Your task to perform on an android device: turn on data saver in the chrome app Image 0: 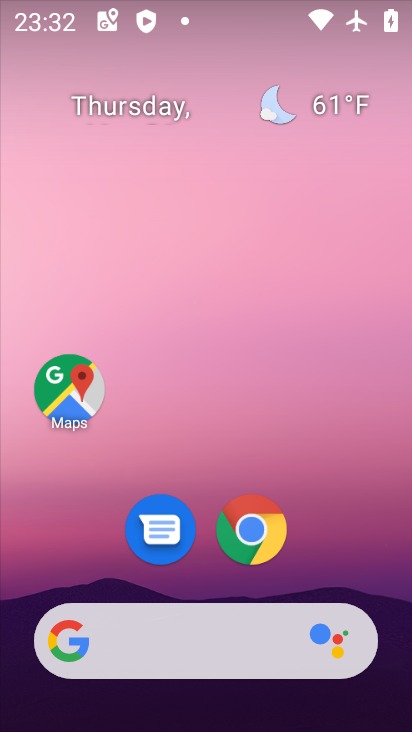
Step 0: click (280, 556)
Your task to perform on an android device: turn on data saver in the chrome app Image 1: 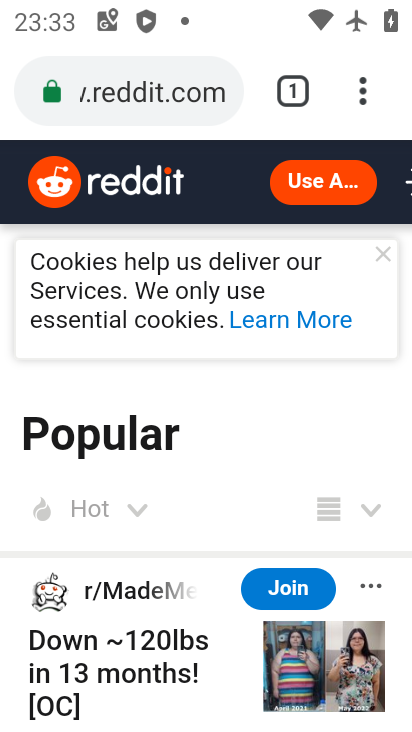
Step 1: click (359, 93)
Your task to perform on an android device: turn on data saver in the chrome app Image 2: 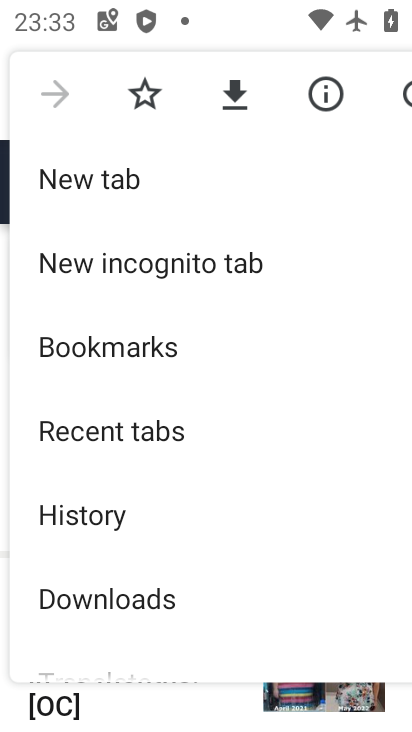
Step 2: drag from (173, 639) to (191, 228)
Your task to perform on an android device: turn on data saver in the chrome app Image 3: 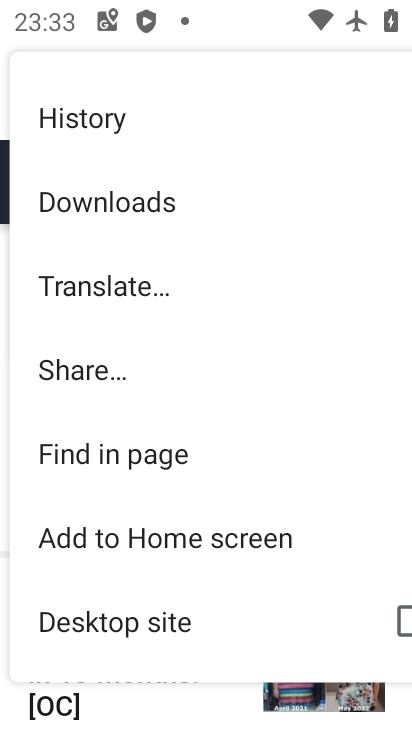
Step 3: drag from (126, 623) to (207, 274)
Your task to perform on an android device: turn on data saver in the chrome app Image 4: 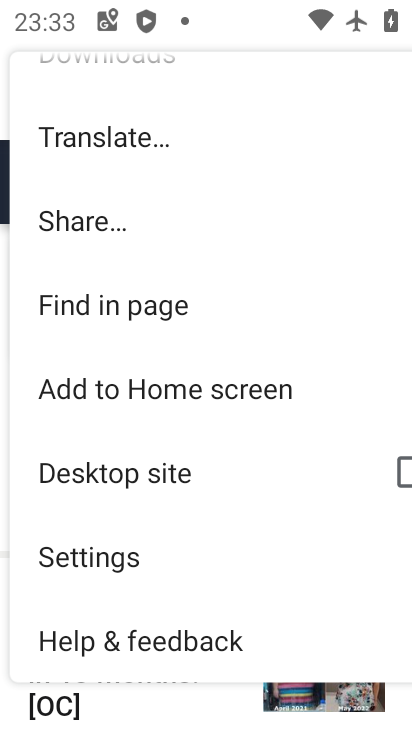
Step 4: click (133, 537)
Your task to perform on an android device: turn on data saver in the chrome app Image 5: 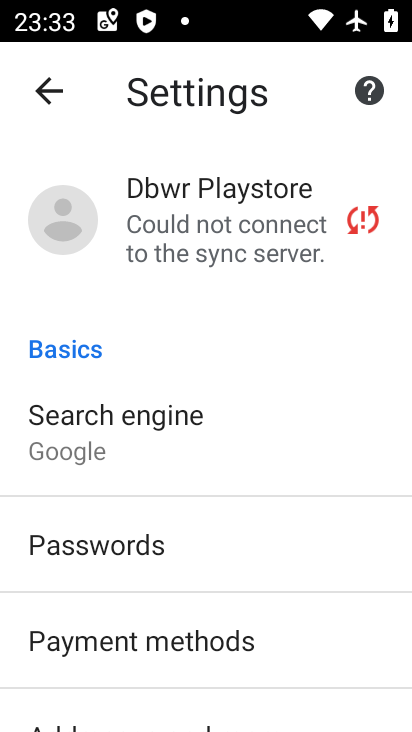
Step 5: drag from (228, 572) to (274, 230)
Your task to perform on an android device: turn on data saver in the chrome app Image 6: 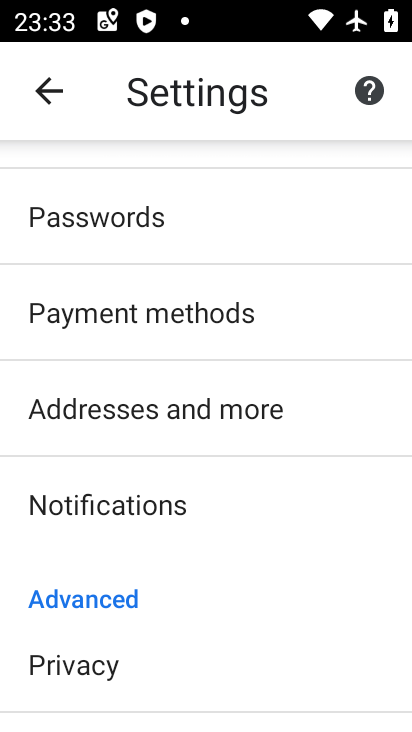
Step 6: drag from (251, 578) to (261, 277)
Your task to perform on an android device: turn on data saver in the chrome app Image 7: 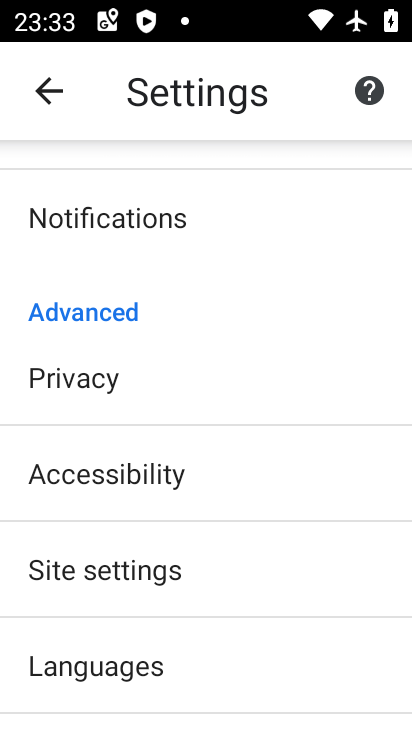
Step 7: drag from (197, 655) to (210, 391)
Your task to perform on an android device: turn on data saver in the chrome app Image 8: 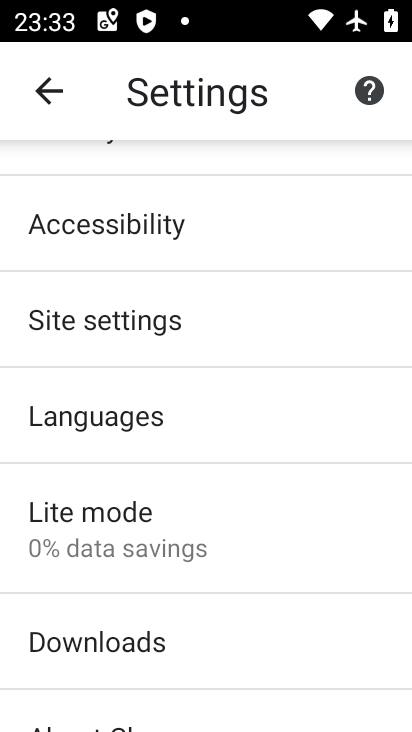
Step 8: click (203, 537)
Your task to perform on an android device: turn on data saver in the chrome app Image 9: 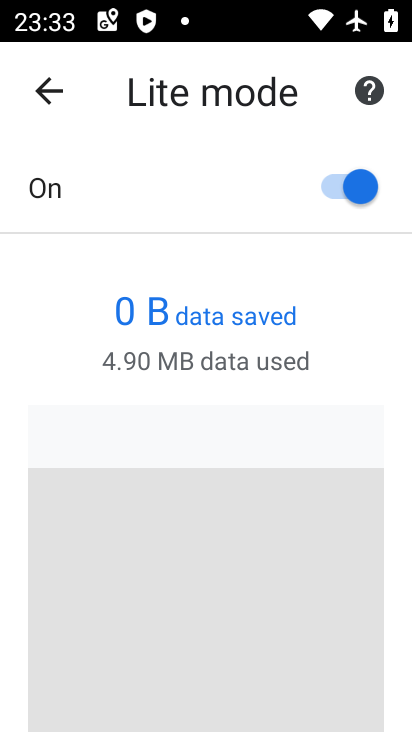
Step 9: click (330, 189)
Your task to perform on an android device: turn on data saver in the chrome app Image 10: 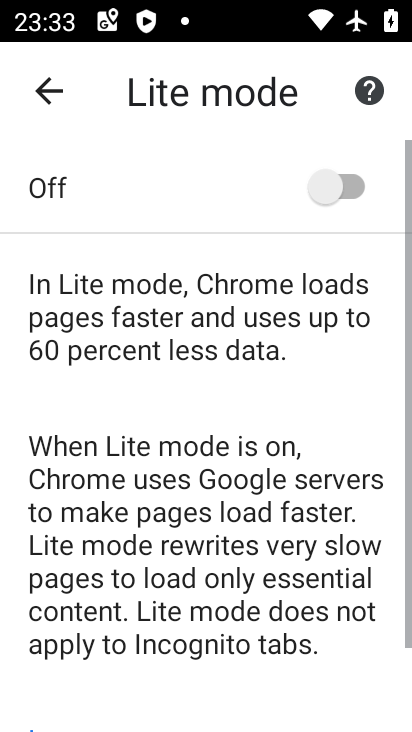
Step 10: task complete